Your task to perform on an android device: Add "razer deathadder" to the cart on newegg, then select checkout. Image 0: 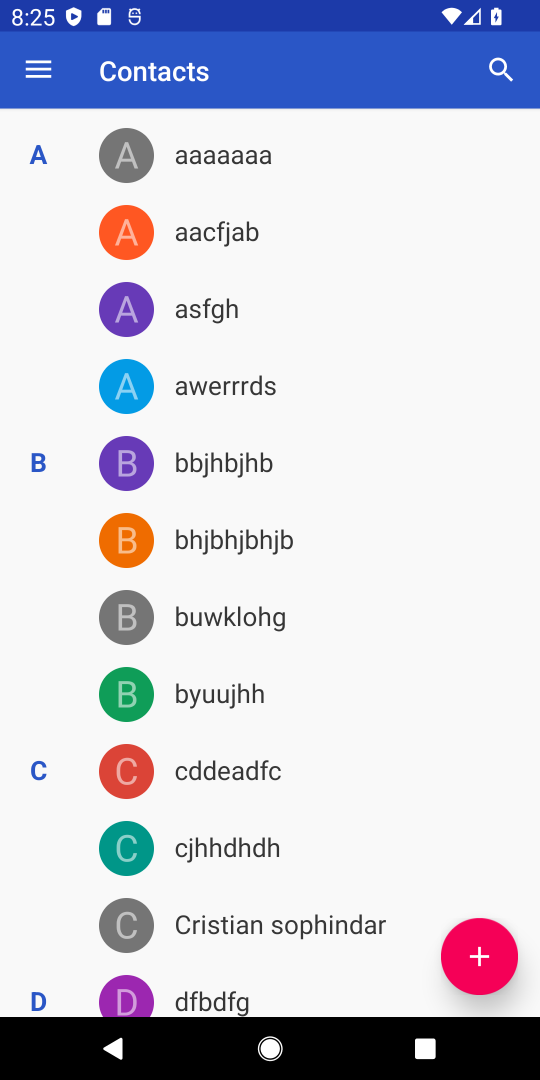
Step 0: press home button
Your task to perform on an android device: Add "razer deathadder" to the cart on newegg, then select checkout. Image 1: 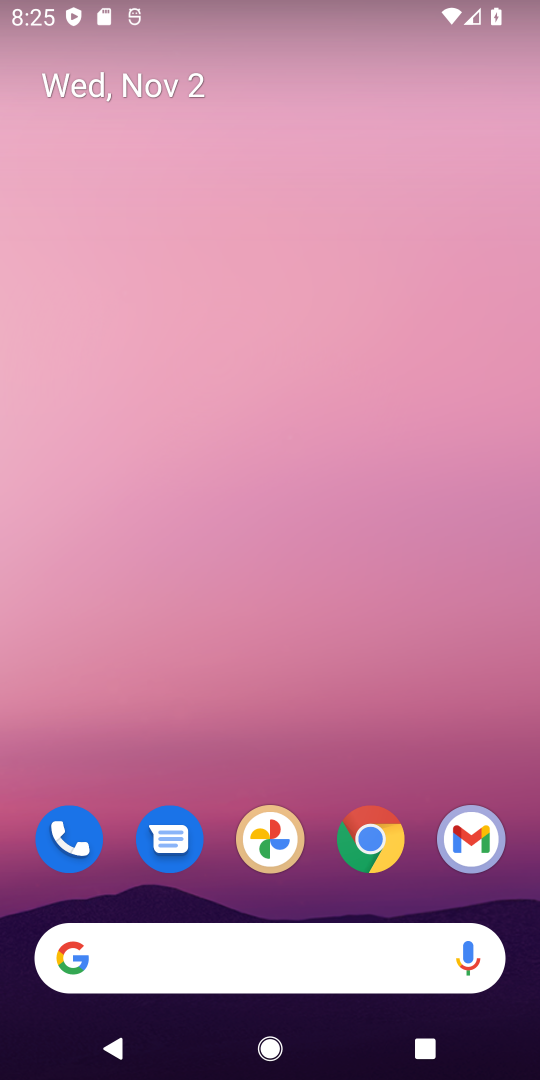
Step 1: click (371, 845)
Your task to perform on an android device: Add "razer deathadder" to the cart on newegg, then select checkout. Image 2: 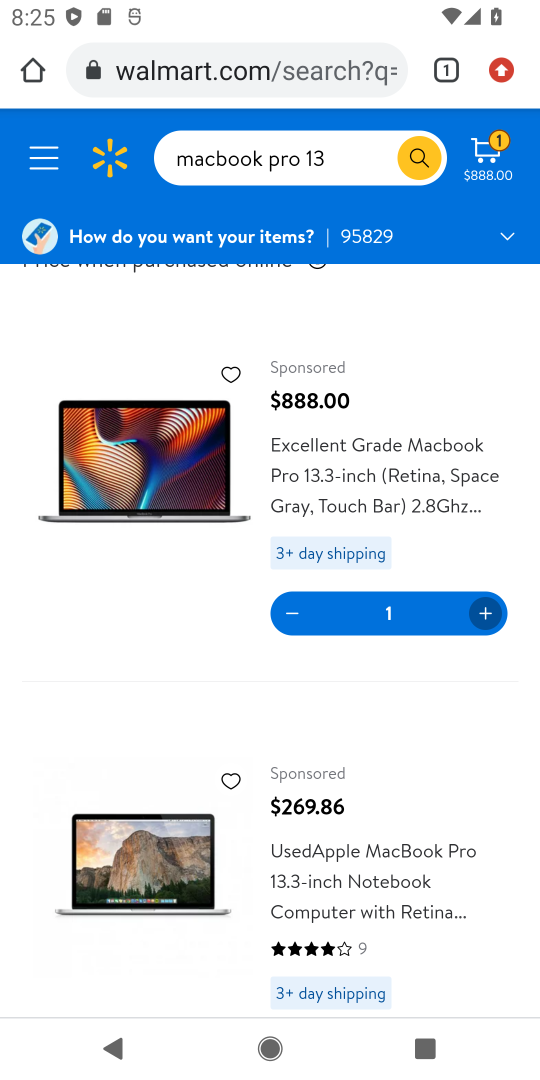
Step 2: click (269, 69)
Your task to perform on an android device: Add "razer deathadder" to the cart on newegg, then select checkout. Image 3: 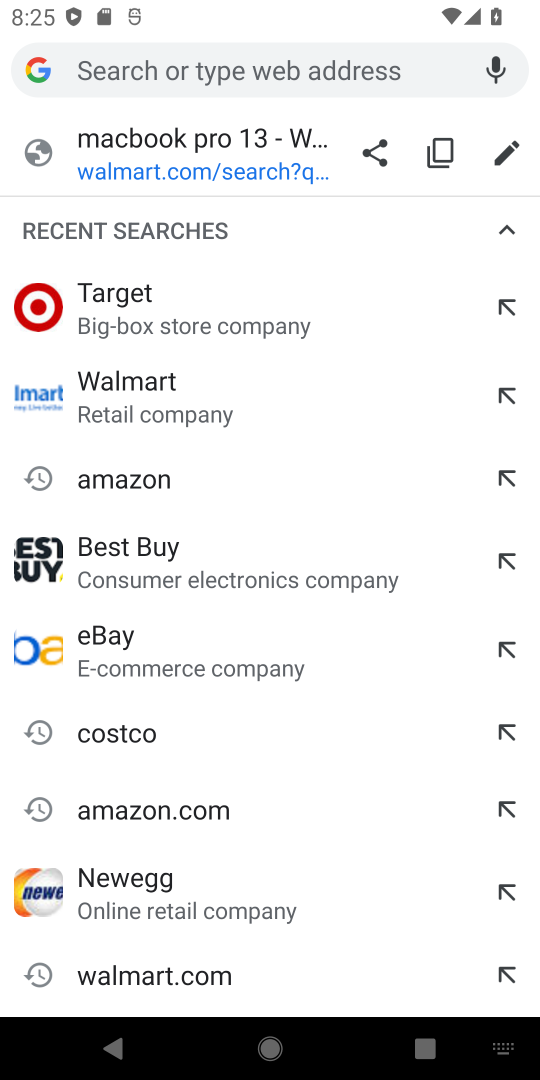
Step 3: type "newegg"
Your task to perform on an android device: Add "razer deathadder" to the cart on newegg, then select checkout. Image 4: 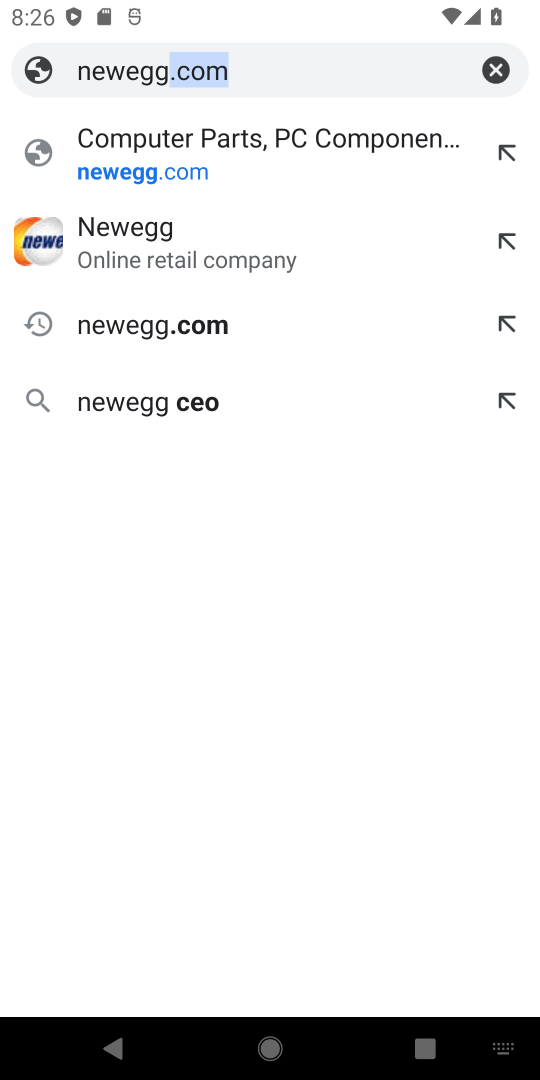
Step 4: click (154, 250)
Your task to perform on an android device: Add "razer deathadder" to the cart on newegg, then select checkout. Image 5: 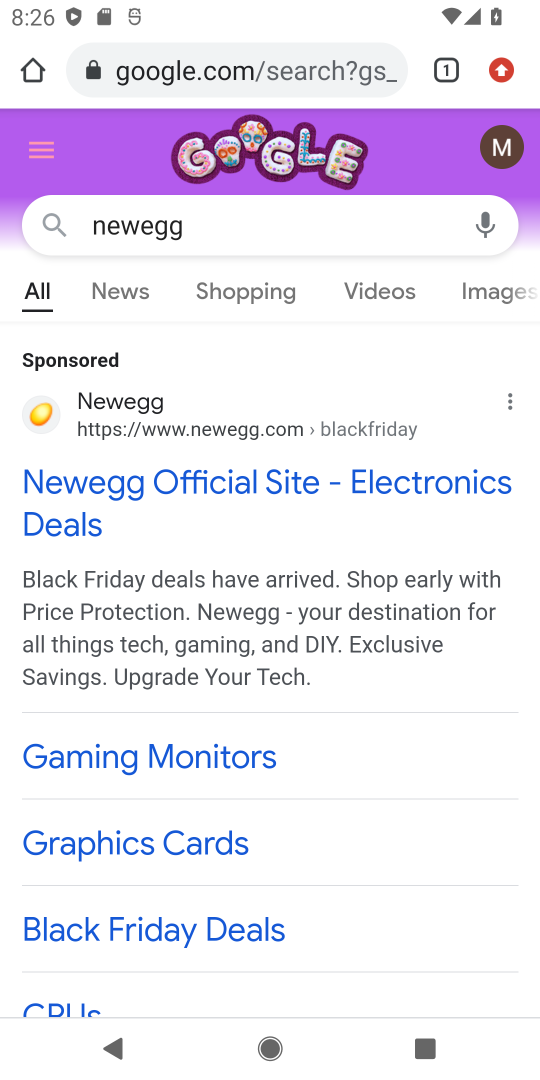
Step 5: drag from (335, 862) to (387, 337)
Your task to perform on an android device: Add "razer deathadder" to the cart on newegg, then select checkout. Image 6: 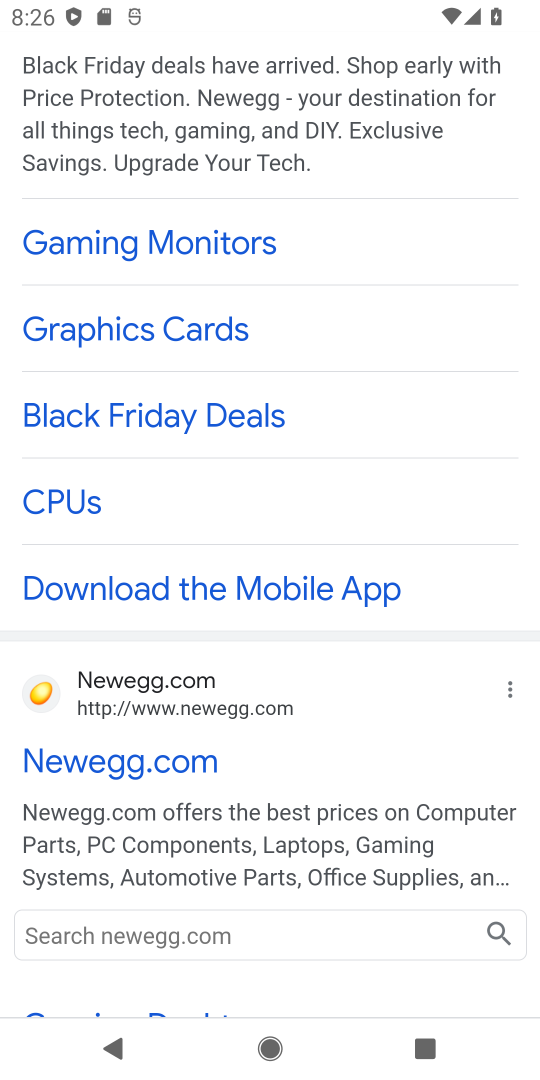
Step 6: drag from (336, 637) to (365, 363)
Your task to perform on an android device: Add "razer deathadder" to the cart on newegg, then select checkout. Image 7: 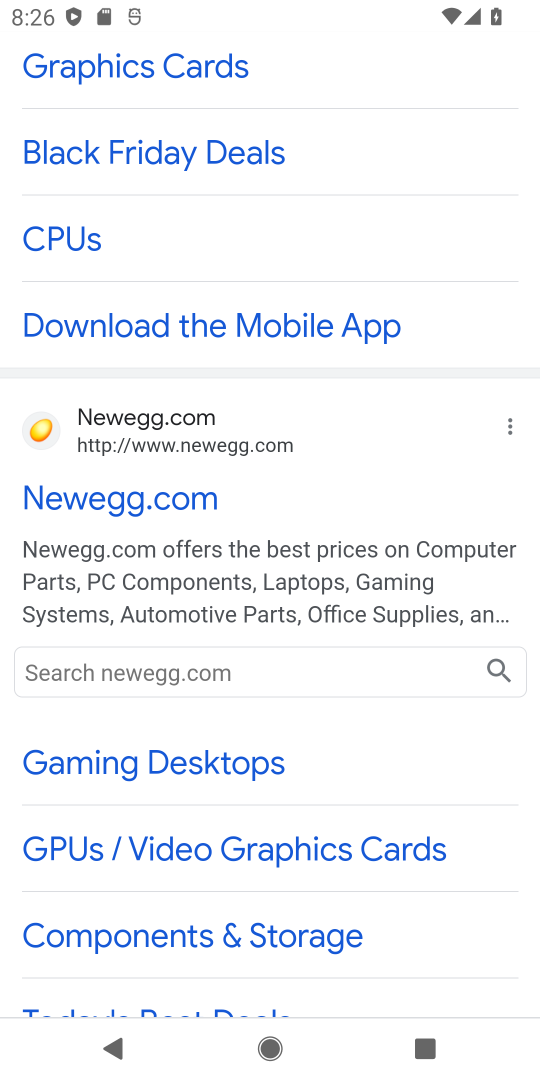
Step 7: click (219, 494)
Your task to perform on an android device: Add "razer deathadder" to the cart on newegg, then select checkout. Image 8: 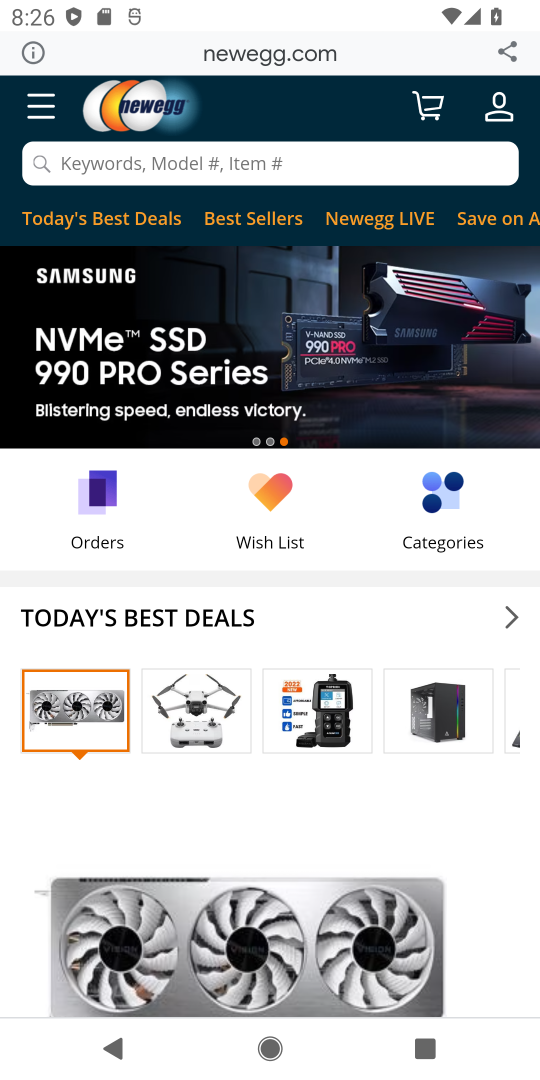
Step 8: click (207, 158)
Your task to perform on an android device: Add "razer deathadder" to the cart on newegg, then select checkout. Image 9: 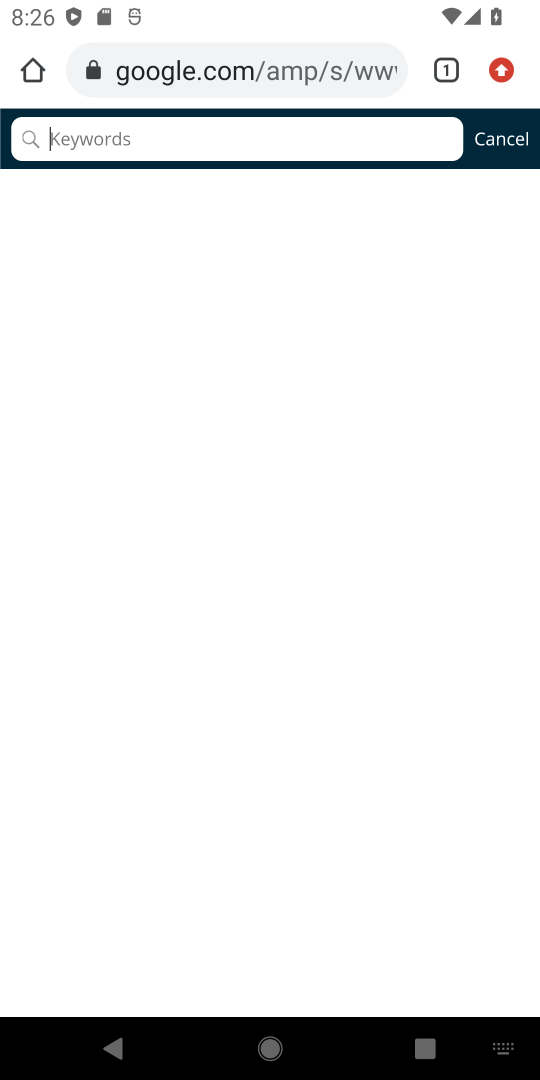
Step 9: click (133, 139)
Your task to perform on an android device: Add "razer deathadder" to the cart on newegg, then select checkout. Image 10: 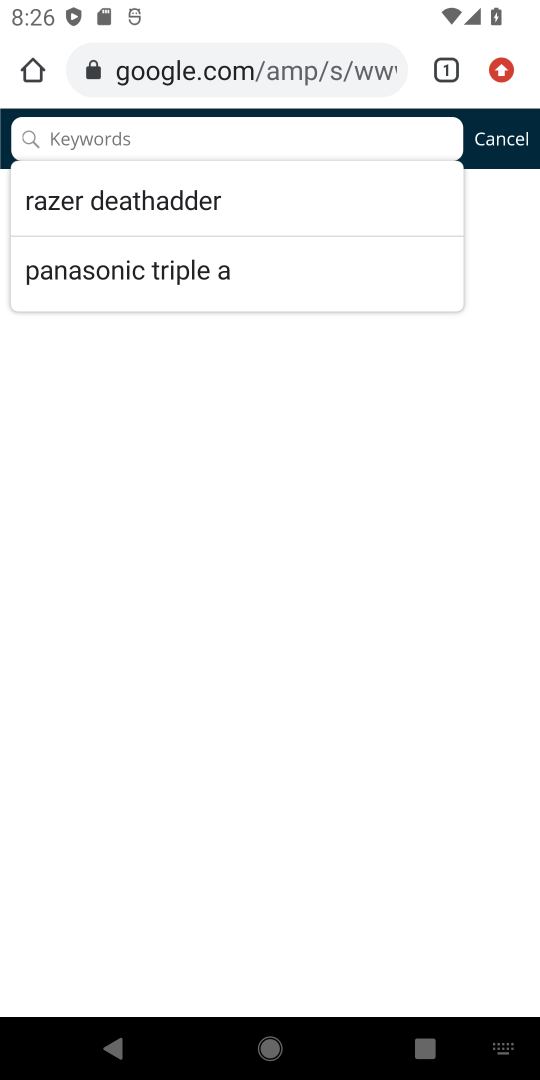
Step 10: type "razer deathadder"
Your task to perform on an android device: Add "razer deathadder" to the cart on newegg, then select checkout. Image 11: 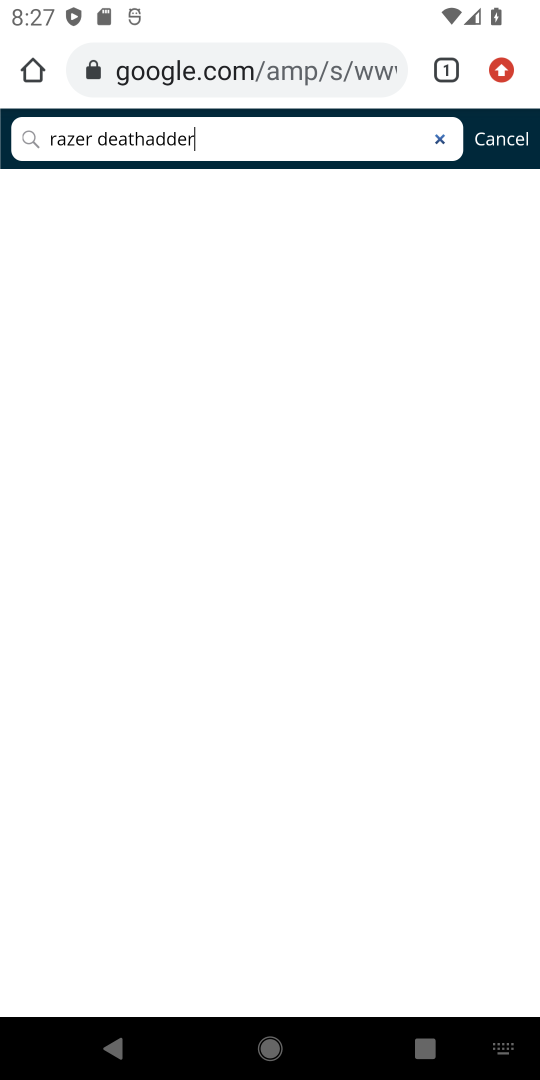
Step 11: task complete